Your task to perform on an android device: Install the Spotify app Image 0: 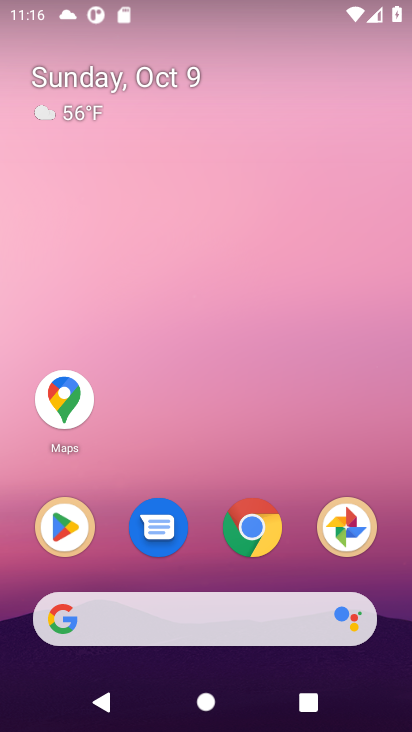
Step 0: click (61, 531)
Your task to perform on an android device: Install the Spotify app Image 1: 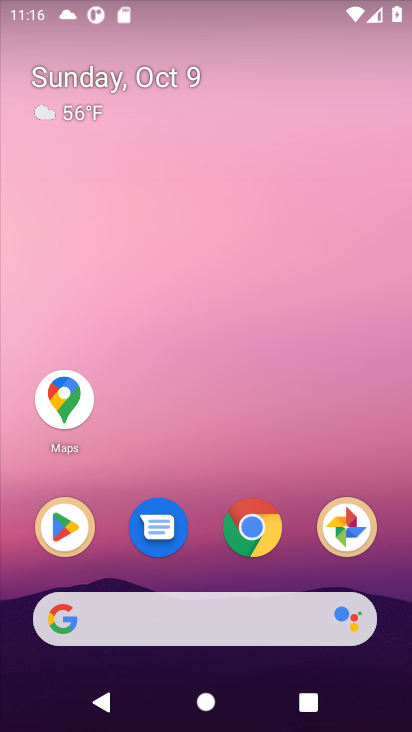
Step 1: click (63, 529)
Your task to perform on an android device: Install the Spotify app Image 2: 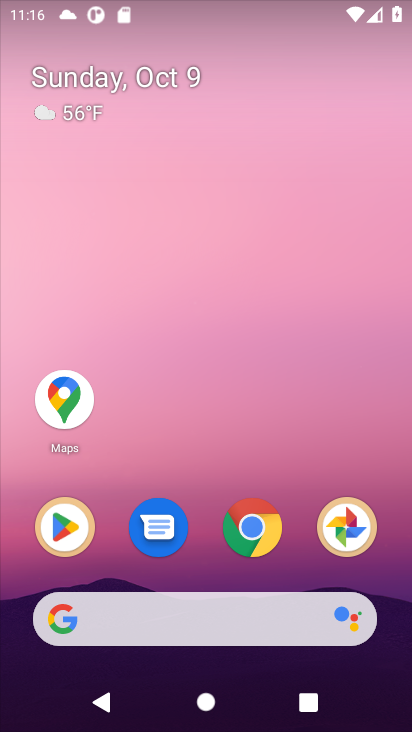
Step 2: drag from (393, 545) to (403, 90)
Your task to perform on an android device: Install the Spotify app Image 3: 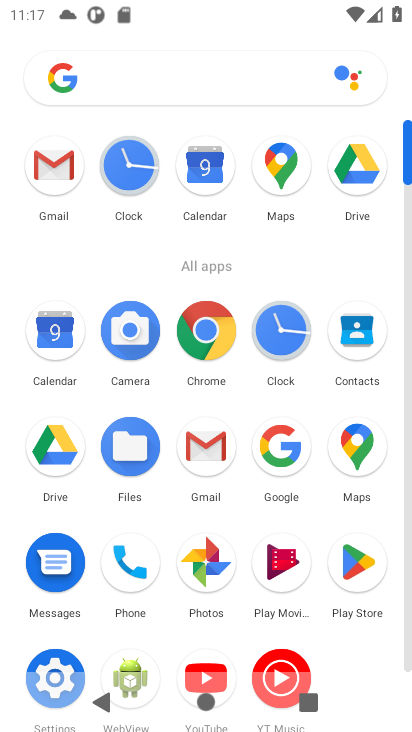
Step 3: click (352, 565)
Your task to perform on an android device: Install the Spotify app Image 4: 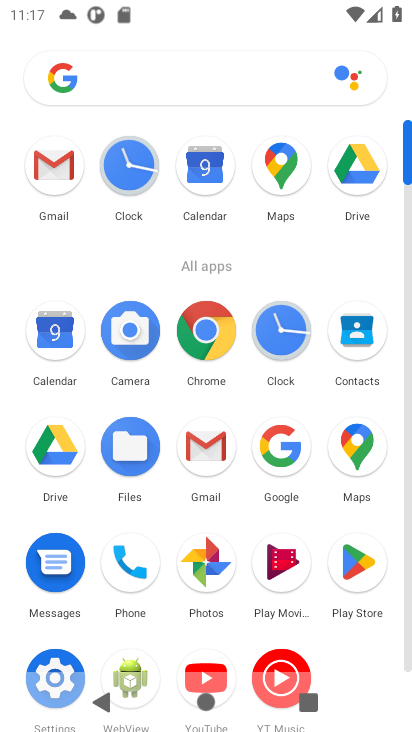
Step 4: click (138, 79)
Your task to perform on an android device: Install the Spotify app Image 5: 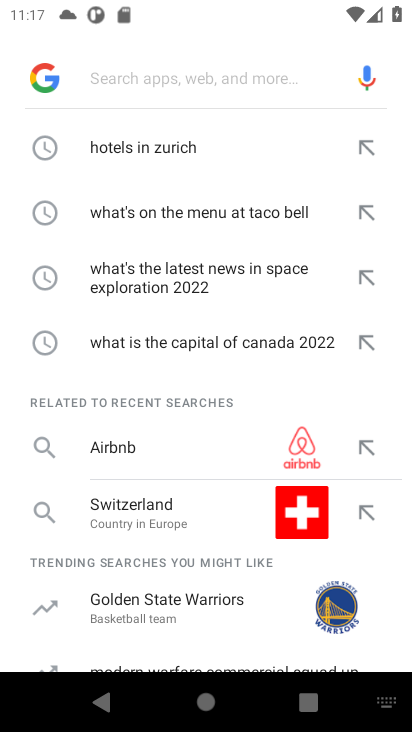
Step 5: type "spotify "
Your task to perform on an android device: Install the Spotify app Image 6: 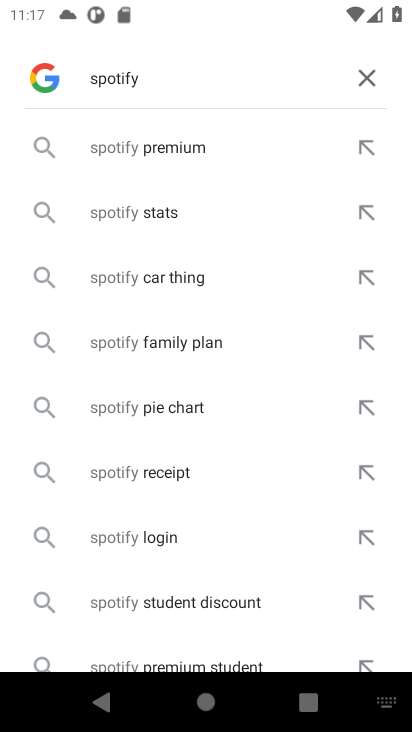
Step 6: click (113, 149)
Your task to perform on an android device: Install the Spotify app Image 7: 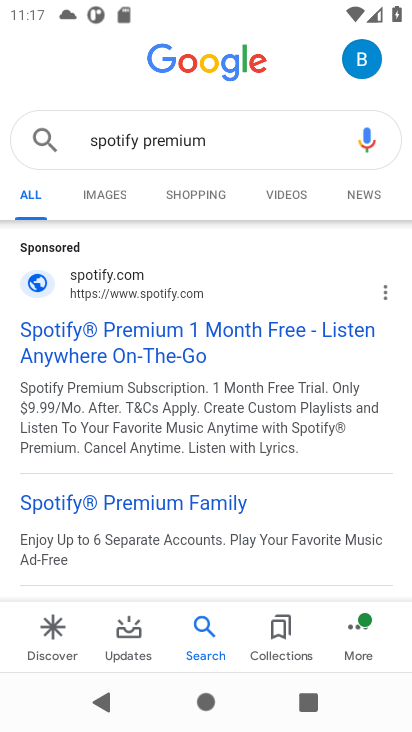
Step 7: drag from (135, 403) to (170, 279)
Your task to perform on an android device: Install the Spotify app Image 8: 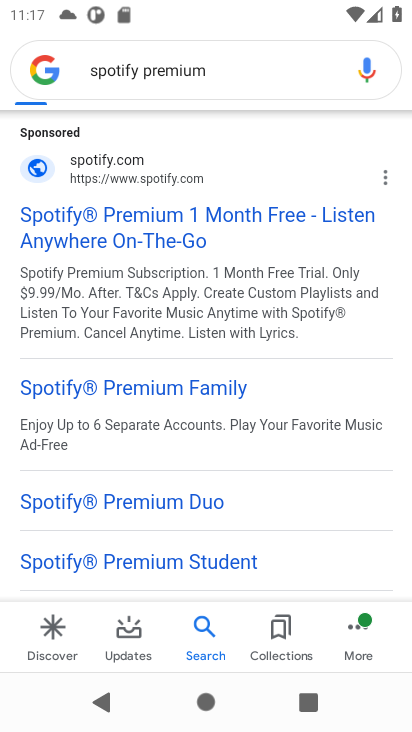
Step 8: drag from (168, 407) to (185, 195)
Your task to perform on an android device: Install the Spotify app Image 9: 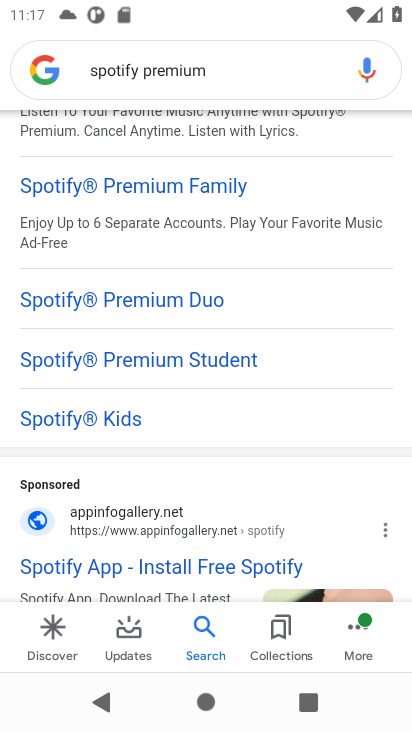
Step 9: drag from (133, 435) to (146, 261)
Your task to perform on an android device: Install the Spotify app Image 10: 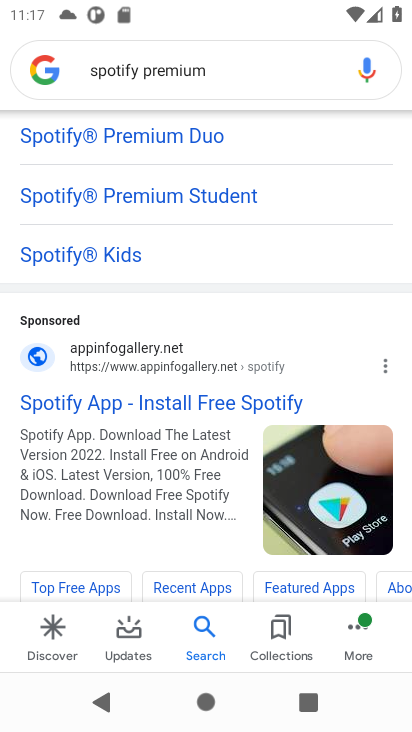
Step 10: click (92, 410)
Your task to perform on an android device: Install the Spotify app Image 11: 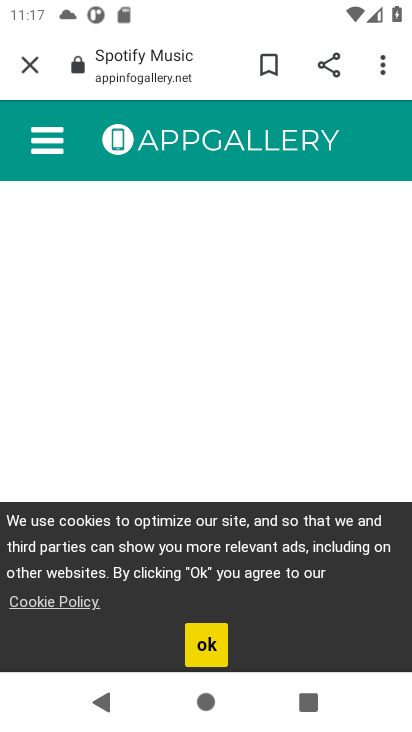
Step 11: drag from (258, 442) to (258, 291)
Your task to perform on an android device: Install the Spotify app Image 12: 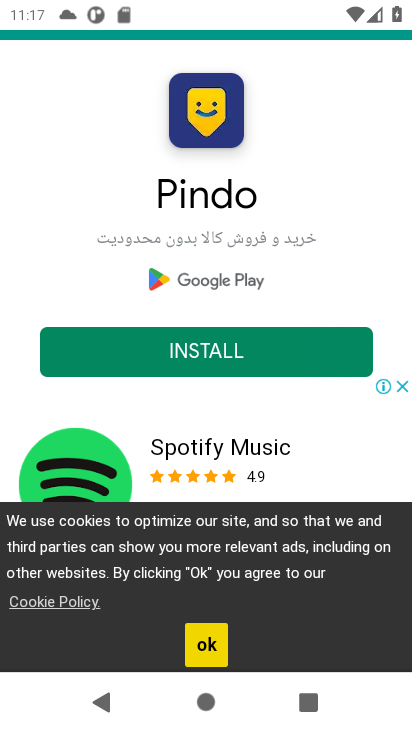
Step 12: drag from (230, 425) to (247, 208)
Your task to perform on an android device: Install the Spotify app Image 13: 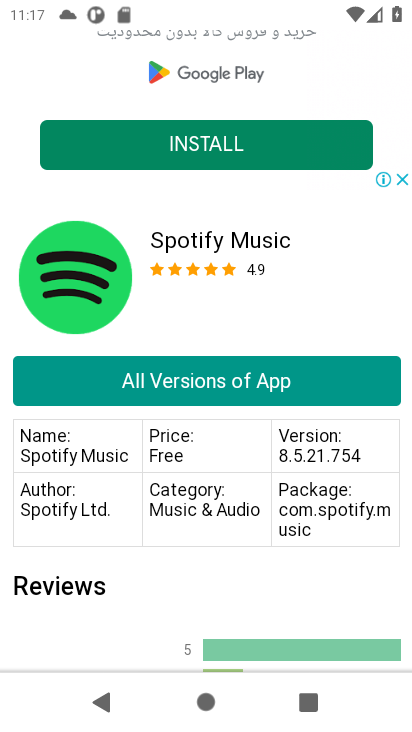
Step 13: drag from (182, 470) to (200, 318)
Your task to perform on an android device: Install the Spotify app Image 14: 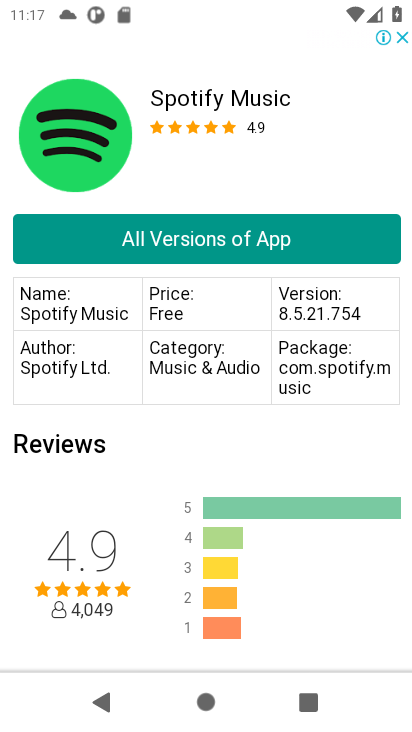
Step 14: click (178, 246)
Your task to perform on an android device: Install the Spotify app Image 15: 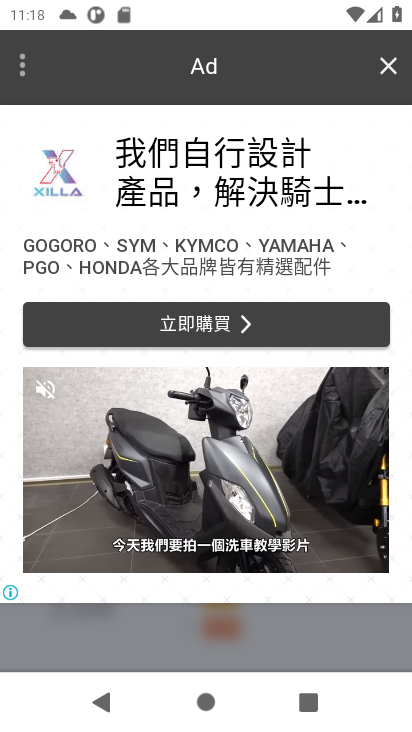
Step 15: click (379, 73)
Your task to perform on an android device: Install the Spotify app Image 16: 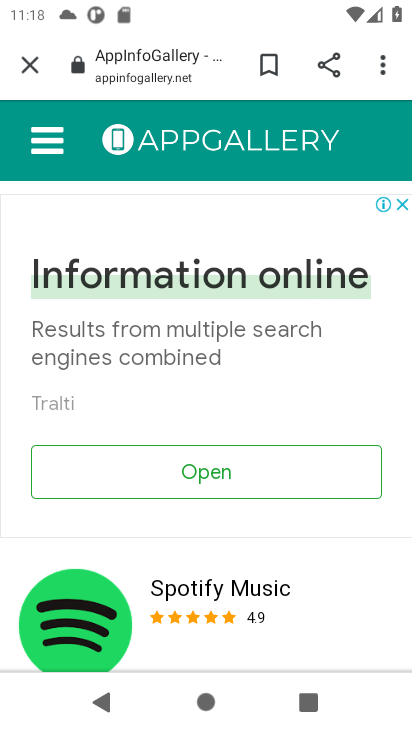
Step 16: drag from (170, 452) to (200, 263)
Your task to perform on an android device: Install the Spotify app Image 17: 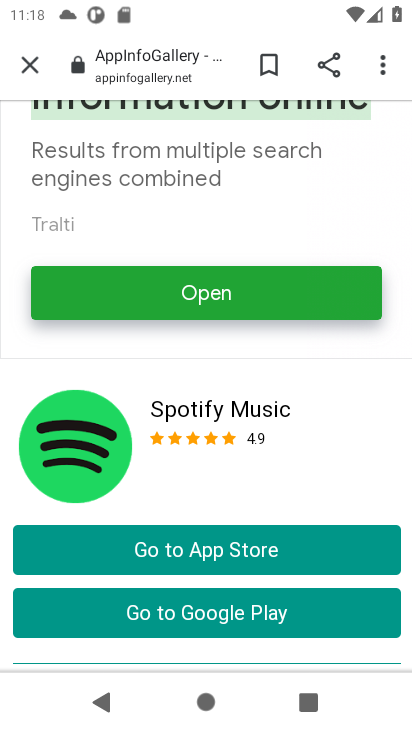
Step 17: click (185, 618)
Your task to perform on an android device: Install the Spotify app Image 18: 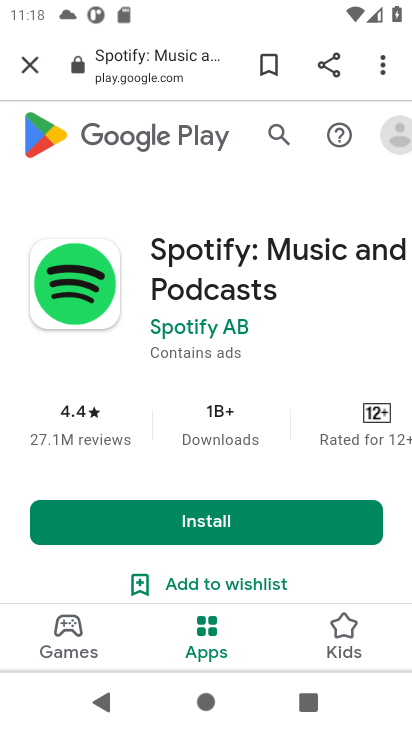
Step 18: click (209, 543)
Your task to perform on an android device: Install the Spotify app Image 19: 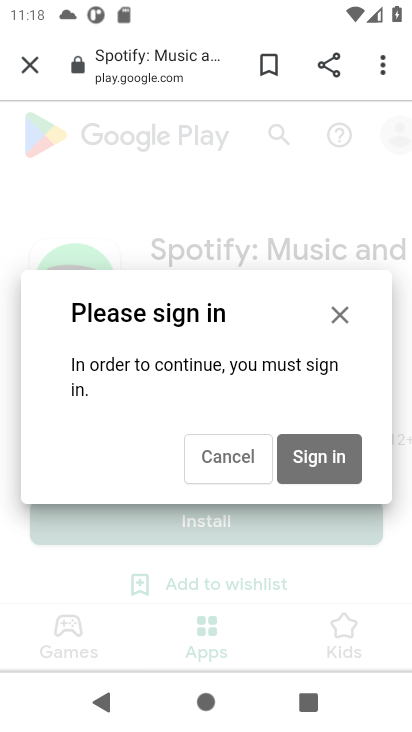
Step 19: click (234, 460)
Your task to perform on an android device: Install the Spotify app Image 20: 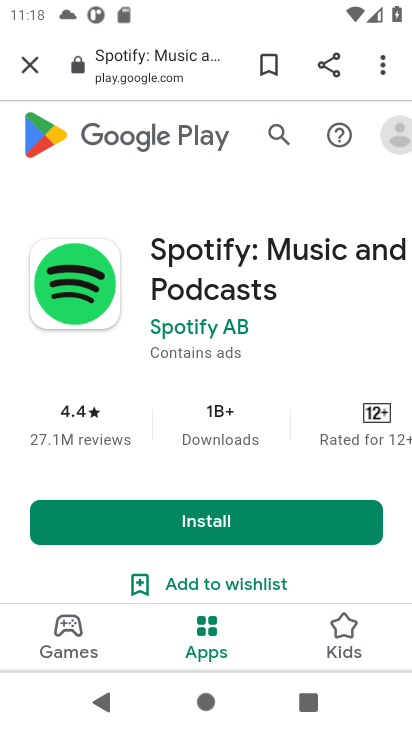
Step 20: click (202, 524)
Your task to perform on an android device: Install the Spotify app Image 21: 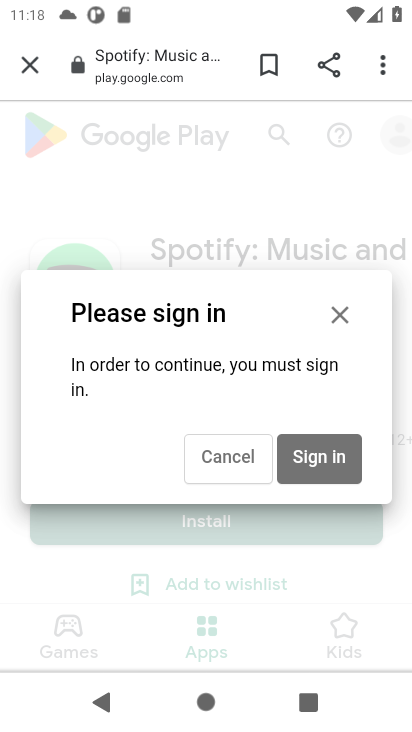
Step 21: task complete